Your task to perform on an android device: add a contact Image 0: 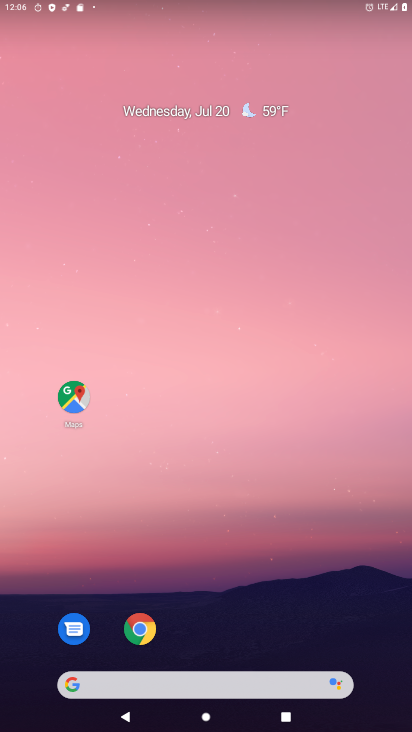
Step 0: drag from (289, 374) to (268, 42)
Your task to perform on an android device: add a contact Image 1: 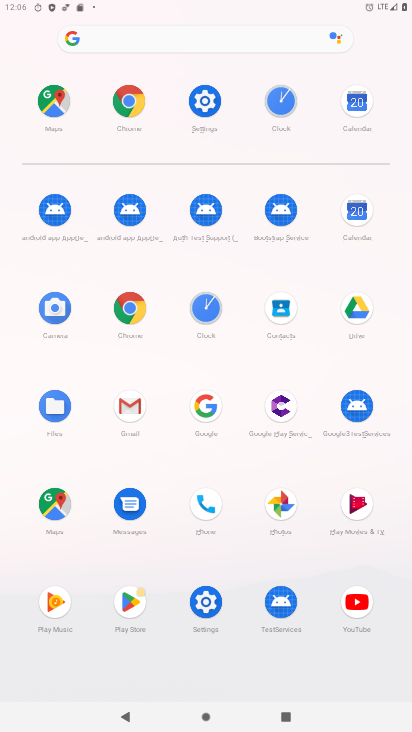
Step 1: click (211, 505)
Your task to perform on an android device: add a contact Image 2: 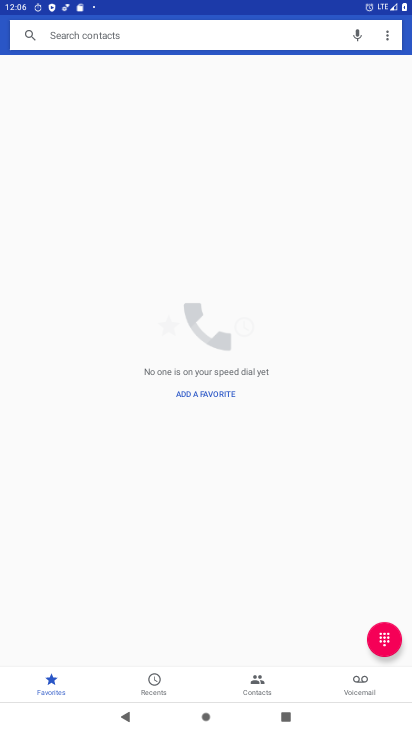
Step 2: click (271, 683)
Your task to perform on an android device: add a contact Image 3: 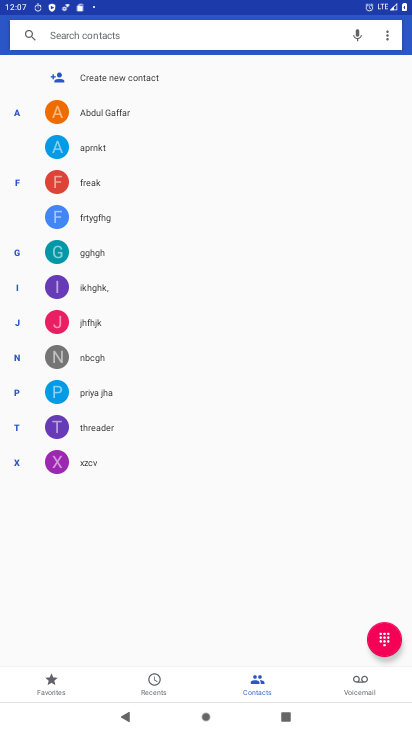
Step 3: click (134, 87)
Your task to perform on an android device: add a contact Image 4: 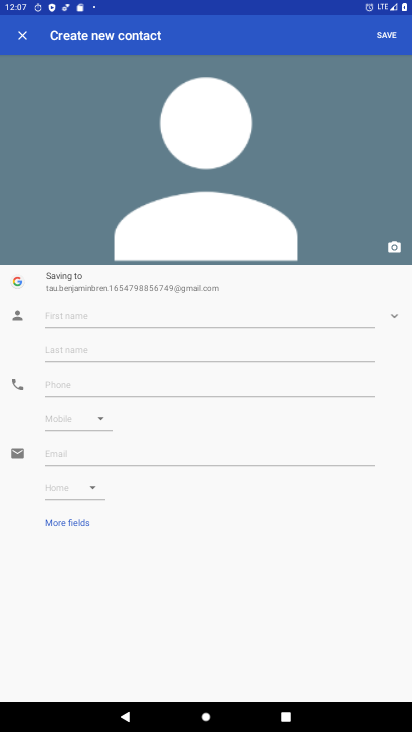
Step 4: click (98, 320)
Your task to perform on an android device: add a contact Image 5: 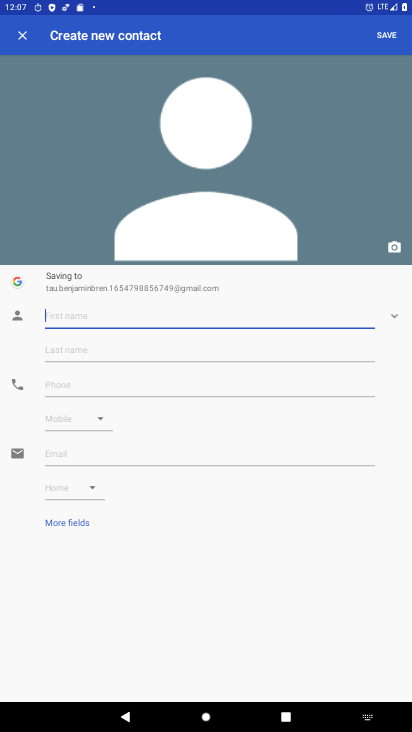
Step 5: type "ghhhh"
Your task to perform on an android device: add a contact Image 6: 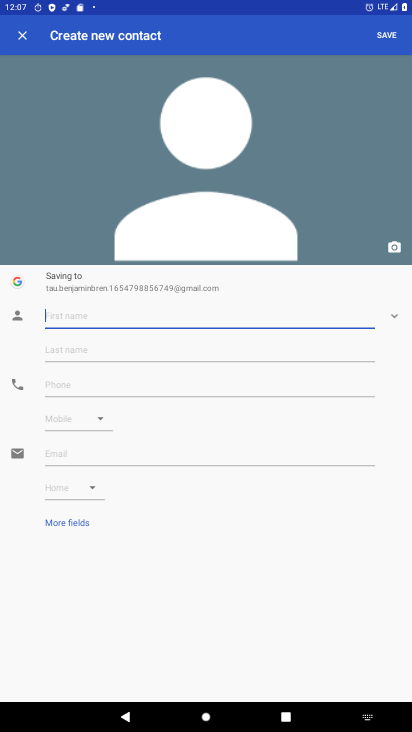
Step 6: click (78, 384)
Your task to perform on an android device: add a contact Image 7: 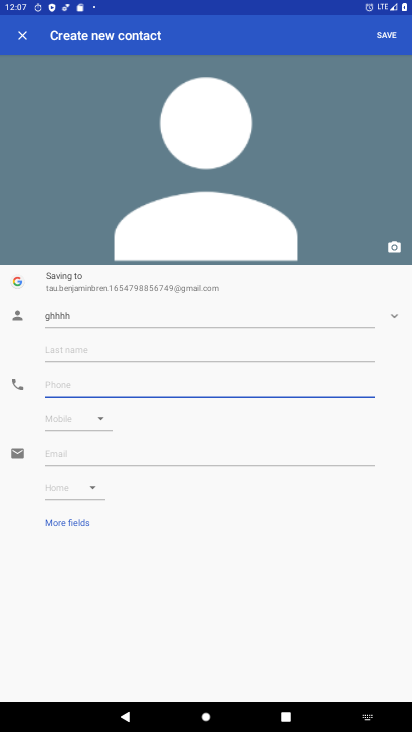
Step 7: type "87644444"
Your task to perform on an android device: add a contact Image 8: 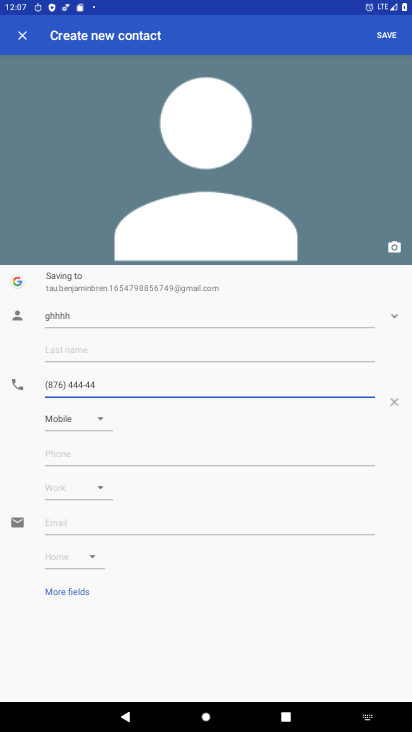
Step 8: click (396, 42)
Your task to perform on an android device: add a contact Image 9: 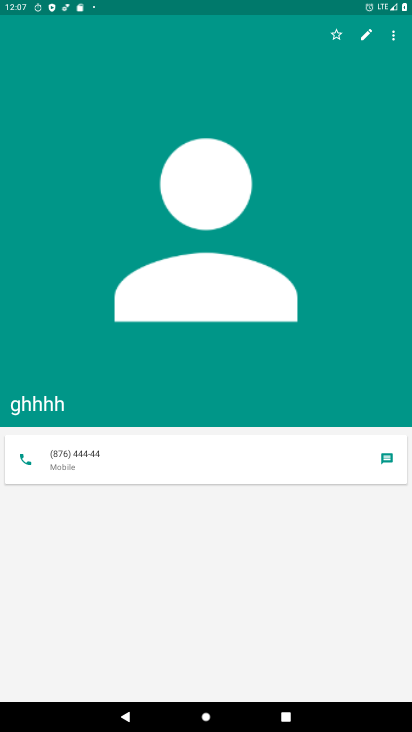
Step 9: task complete